Your task to perform on an android device: add a label to a message in the gmail app Image 0: 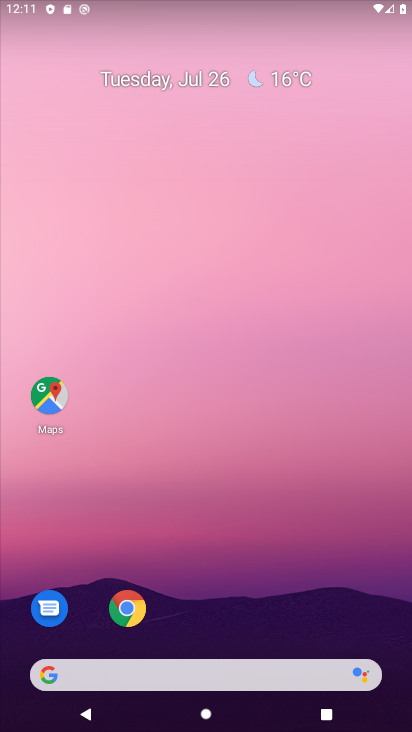
Step 0: drag from (332, 610) to (148, 95)
Your task to perform on an android device: add a label to a message in the gmail app Image 1: 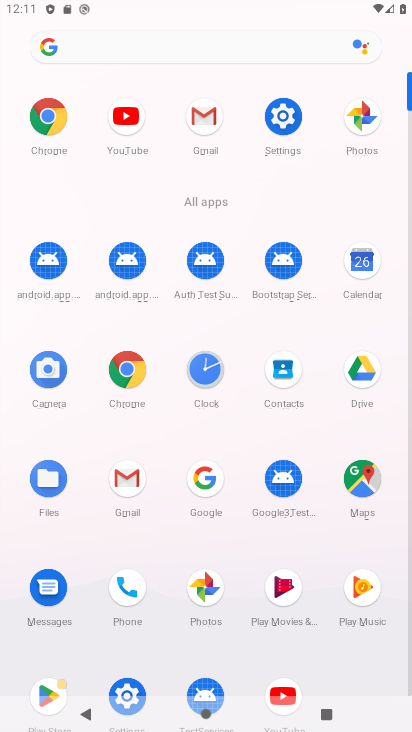
Step 1: click (207, 124)
Your task to perform on an android device: add a label to a message in the gmail app Image 2: 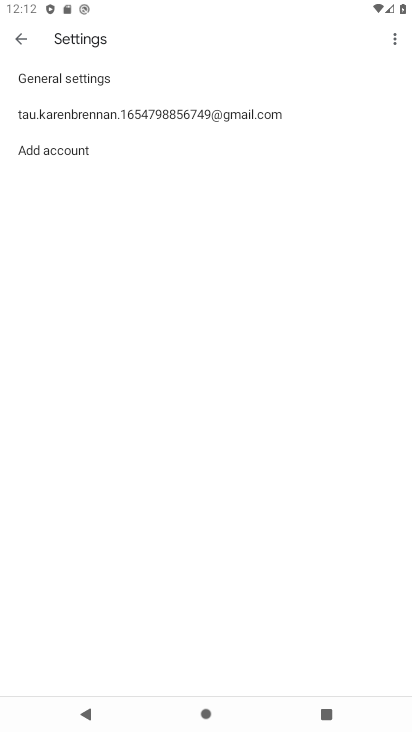
Step 2: task complete